Your task to perform on an android device: stop showing notifications on the lock screen Image 0: 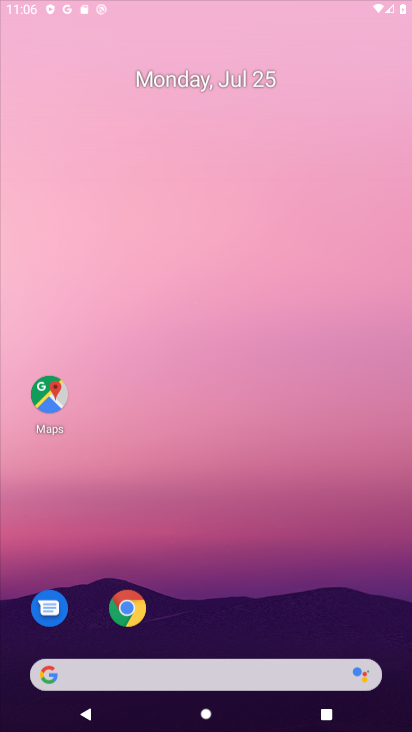
Step 0: click (132, 613)
Your task to perform on an android device: stop showing notifications on the lock screen Image 1: 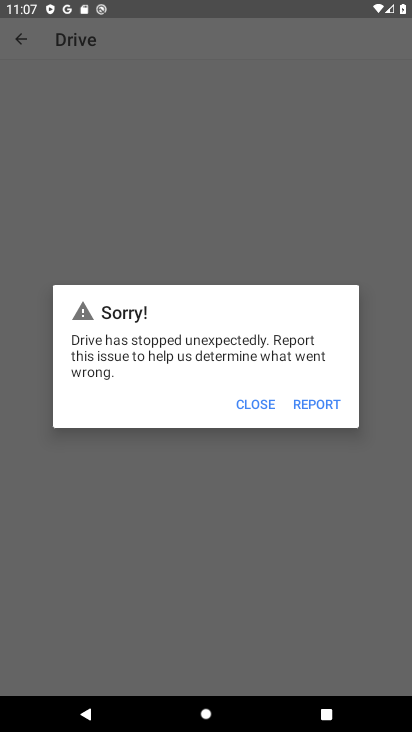
Step 1: press home button
Your task to perform on an android device: stop showing notifications on the lock screen Image 2: 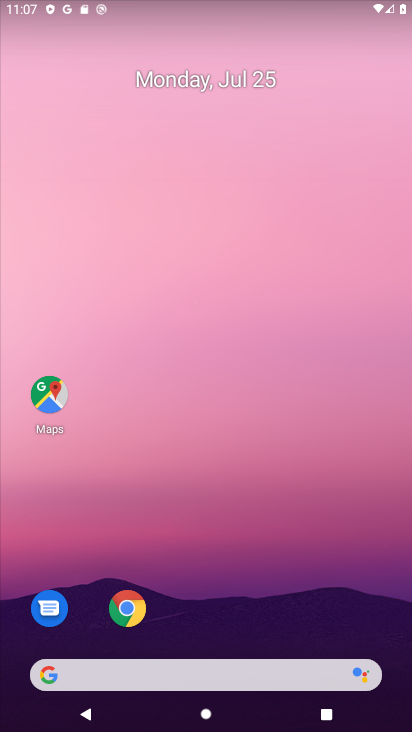
Step 2: drag from (265, 594) to (283, 0)
Your task to perform on an android device: stop showing notifications on the lock screen Image 3: 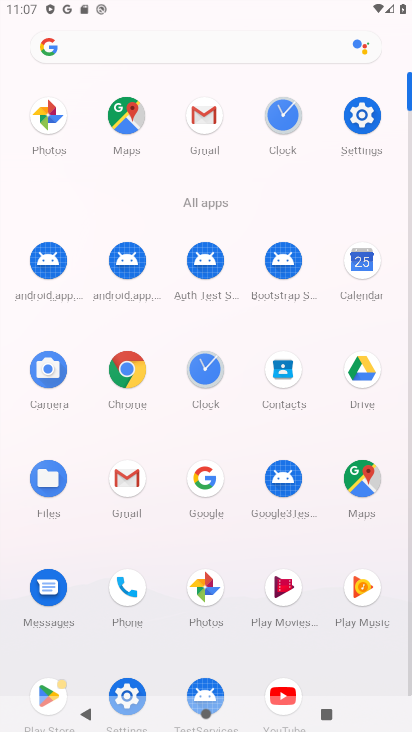
Step 3: click (362, 127)
Your task to perform on an android device: stop showing notifications on the lock screen Image 4: 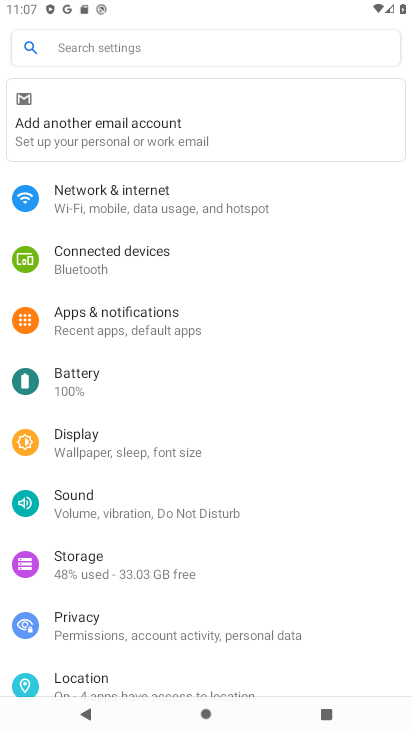
Step 4: click (166, 311)
Your task to perform on an android device: stop showing notifications on the lock screen Image 5: 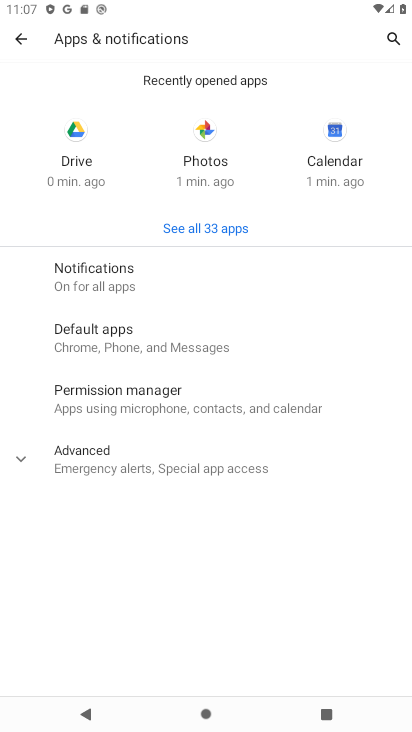
Step 5: click (140, 458)
Your task to perform on an android device: stop showing notifications on the lock screen Image 6: 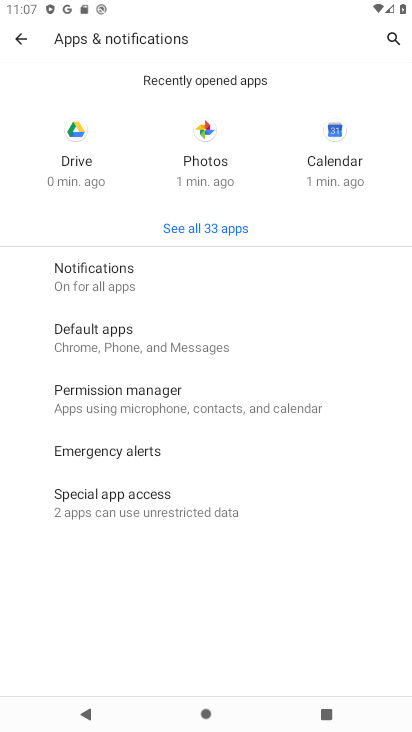
Step 6: click (150, 293)
Your task to perform on an android device: stop showing notifications on the lock screen Image 7: 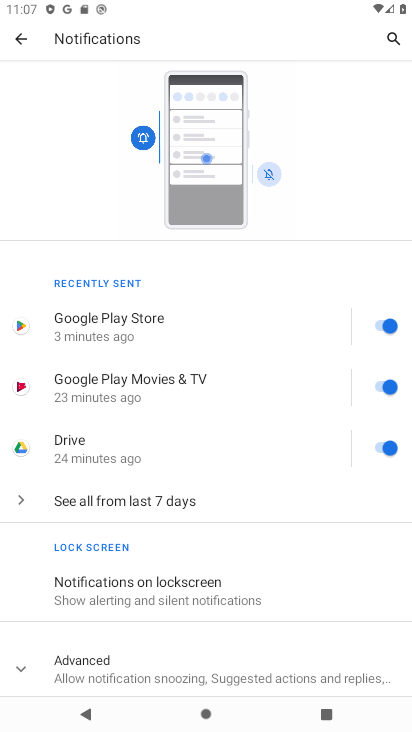
Step 7: click (174, 662)
Your task to perform on an android device: stop showing notifications on the lock screen Image 8: 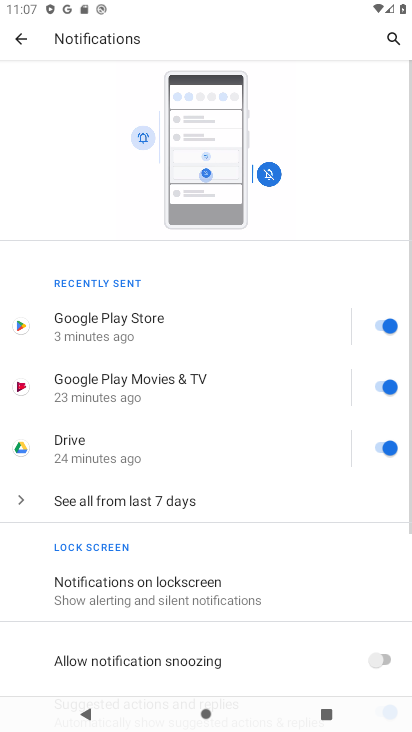
Step 8: click (232, 598)
Your task to perform on an android device: stop showing notifications on the lock screen Image 9: 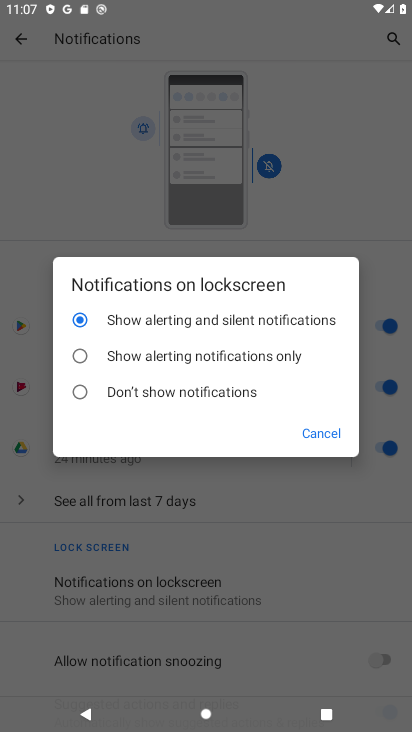
Step 9: click (125, 401)
Your task to perform on an android device: stop showing notifications on the lock screen Image 10: 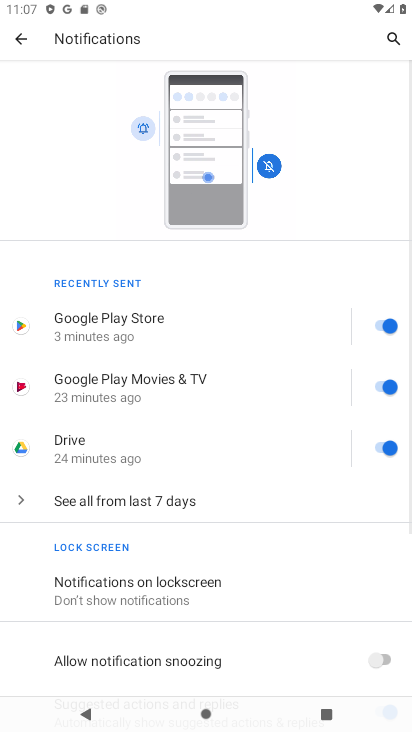
Step 10: task complete